Your task to perform on an android device: Open calendar and show me the first week of next month Image 0: 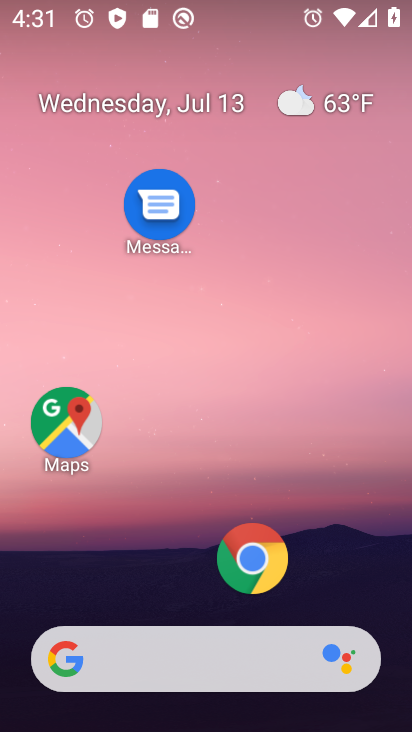
Step 0: drag from (174, 629) to (178, 198)
Your task to perform on an android device: Open calendar and show me the first week of next month Image 1: 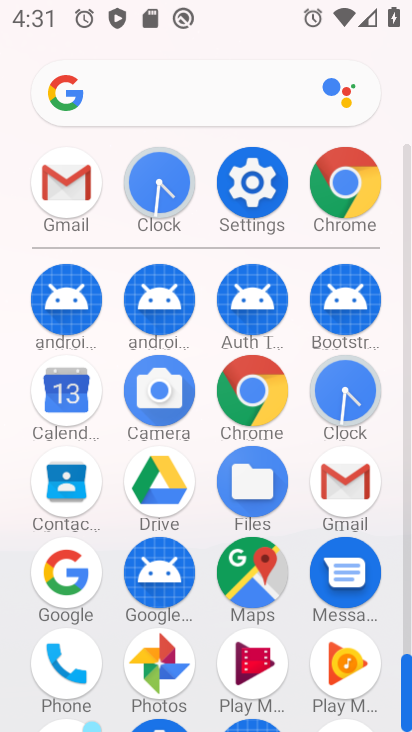
Step 1: click (71, 392)
Your task to perform on an android device: Open calendar and show me the first week of next month Image 2: 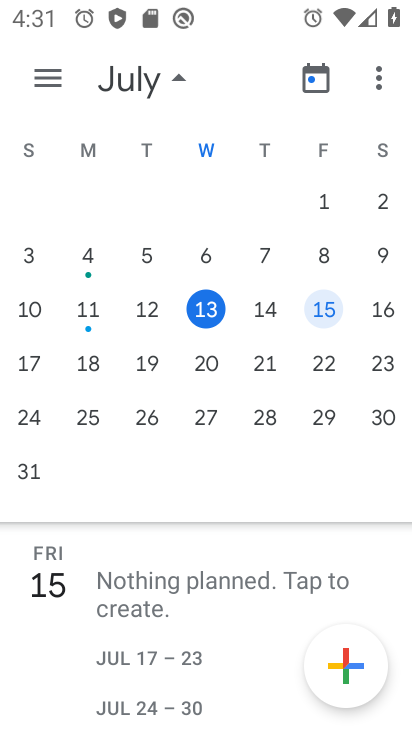
Step 2: task complete